Your task to perform on an android device: change notification settings in the gmail app Image 0: 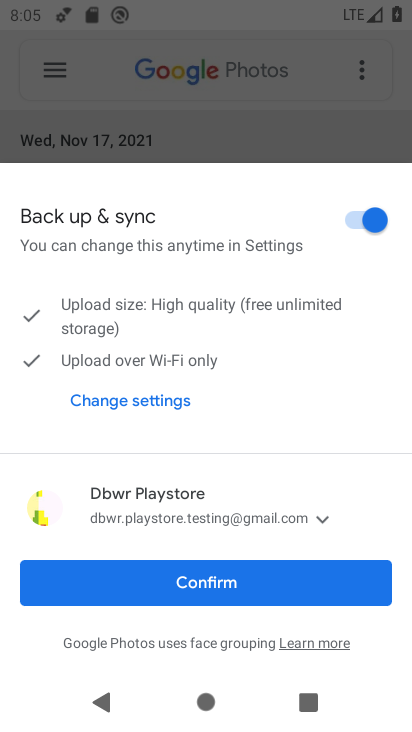
Step 0: press home button
Your task to perform on an android device: change notification settings in the gmail app Image 1: 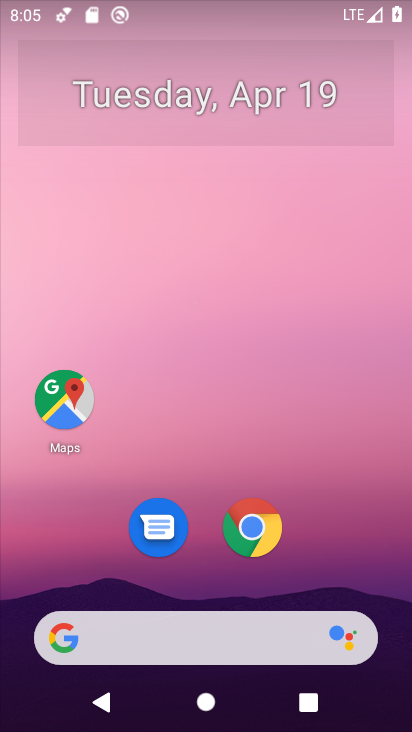
Step 1: drag from (348, 527) to (341, 93)
Your task to perform on an android device: change notification settings in the gmail app Image 2: 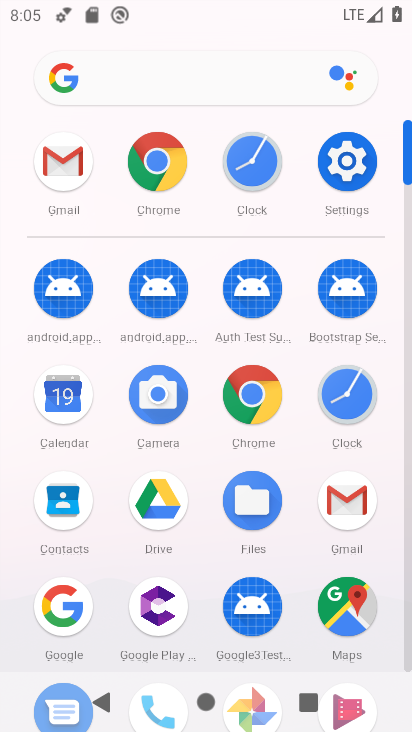
Step 2: click (358, 508)
Your task to perform on an android device: change notification settings in the gmail app Image 3: 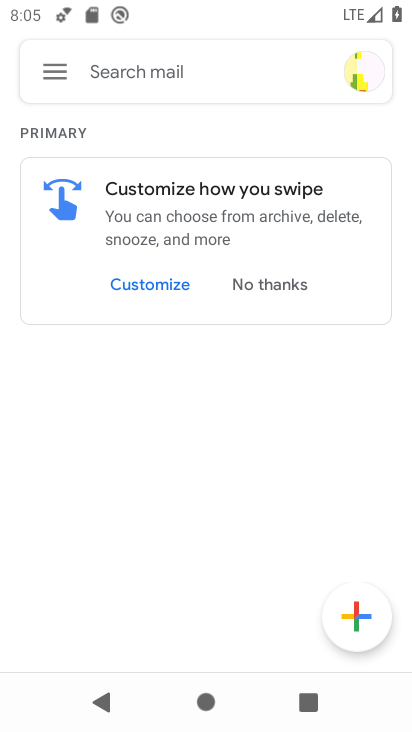
Step 3: click (47, 74)
Your task to perform on an android device: change notification settings in the gmail app Image 4: 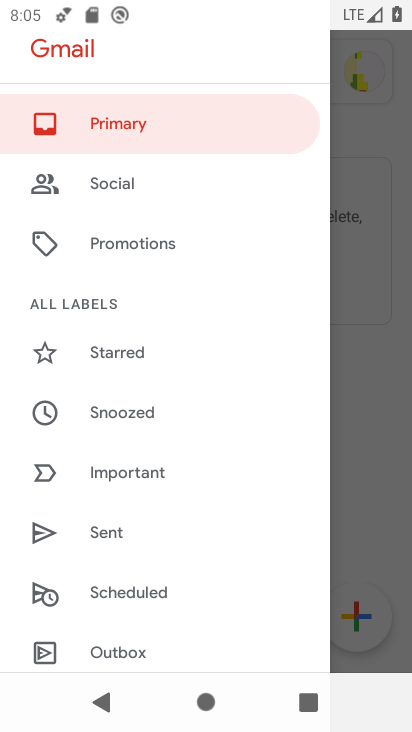
Step 4: drag from (269, 611) to (238, 185)
Your task to perform on an android device: change notification settings in the gmail app Image 5: 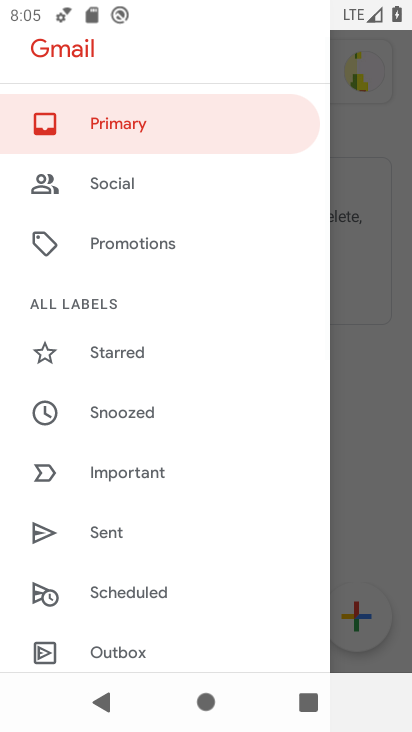
Step 5: drag from (218, 569) to (234, 200)
Your task to perform on an android device: change notification settings in the gmail app Image 6: 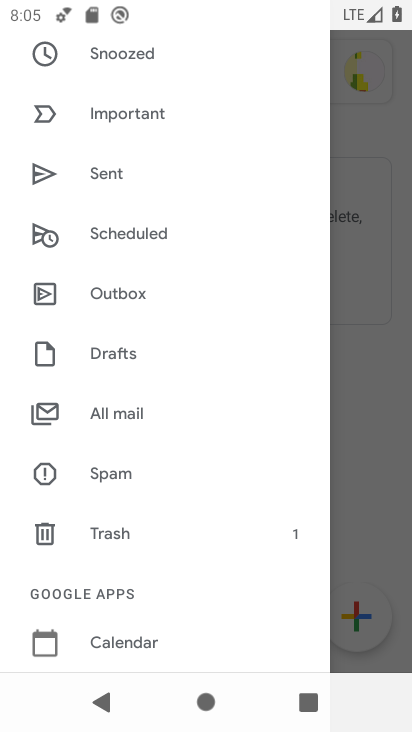
Step 6: drag from (217, 579) to (238, 232)
Your task to perform on an android device: change notification settings in the gmail app Image 7: 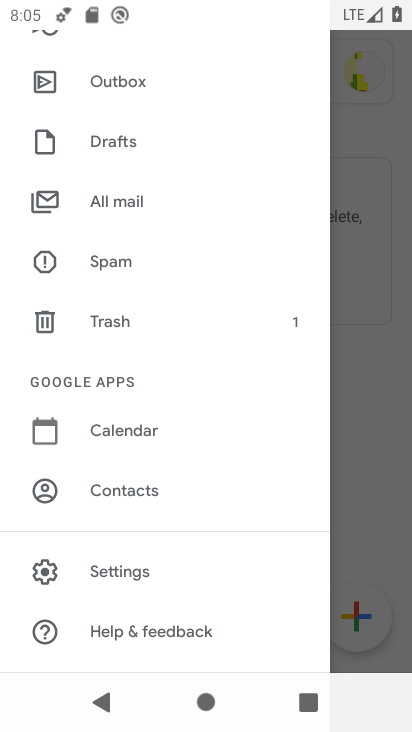
Step 7: click (122, 576)
Your task to perform on an android device: change notification settings in the gmail app Image 8: 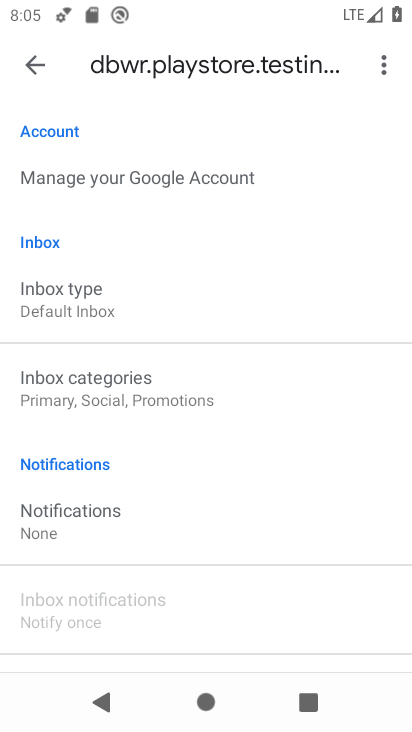
Step 8: click (94, 520)
Your task to perform on an android device: change notification settings in the gmail app Image 9: 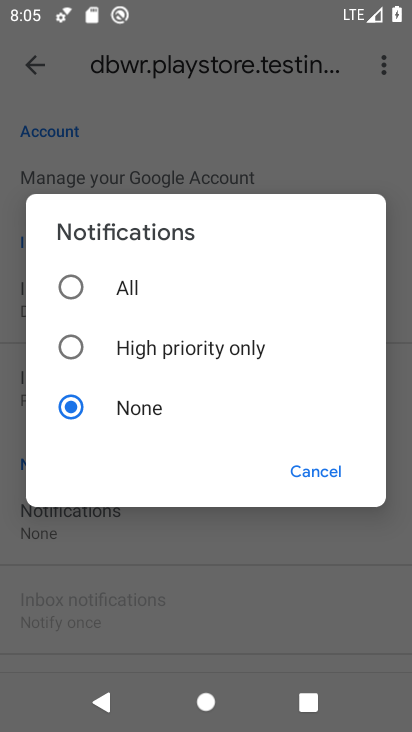
Step 9: click (139, 350)
Your task to perform on an android device: change notification settings in the gmail app Image 10: 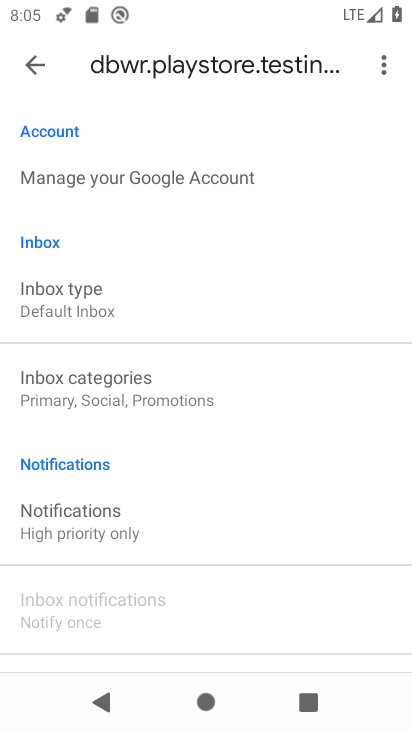
Step 10: task complete